Your task to perform on an android device: Open Youtube and go to "Your channel" Image 0: 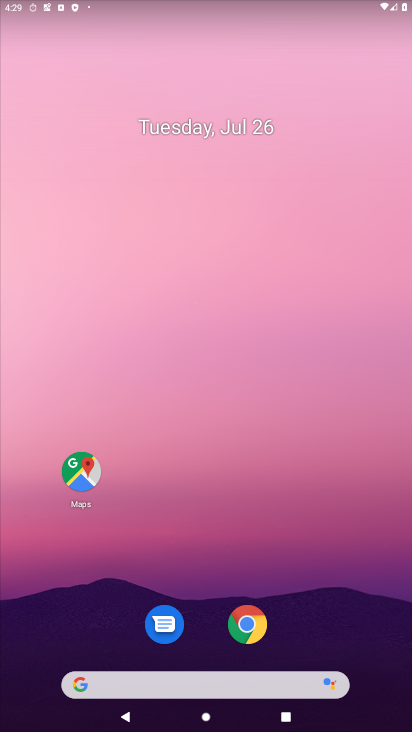
Step 0: drag from (250, 685) to (264, 9)
Your task to perform on an android device: Open Youtube and go to "Your channel" Image 1: 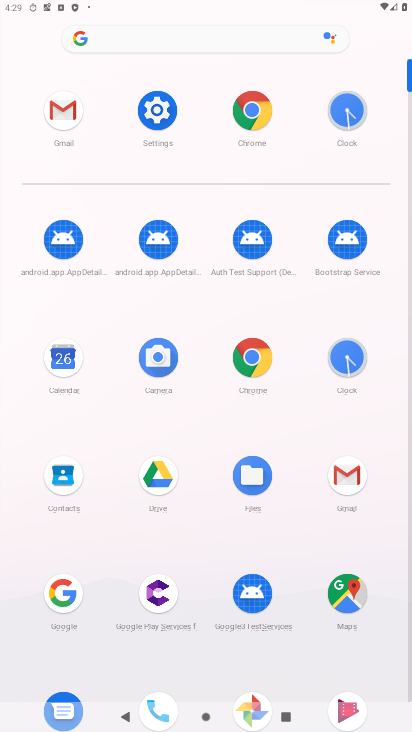
Step 1: drag from (316, 670) to (308, 250)
Your task to perform on an android device: Open Youtube and go to "Your channel" Image 2: 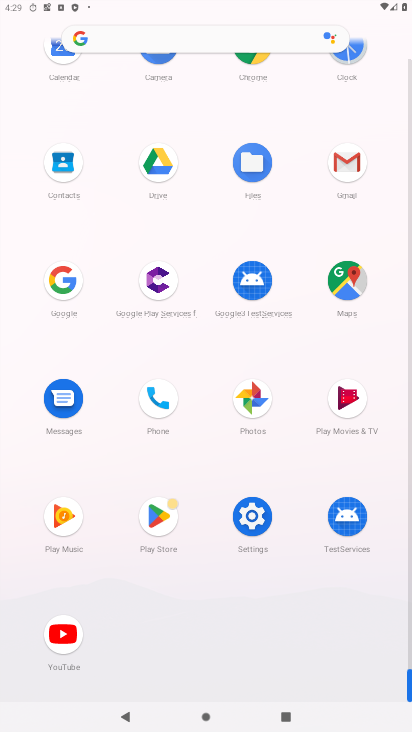
Step 2: click (64, 644)
Your task to perform on an android device: Open Youtube and go to "Your channel" Image 3: 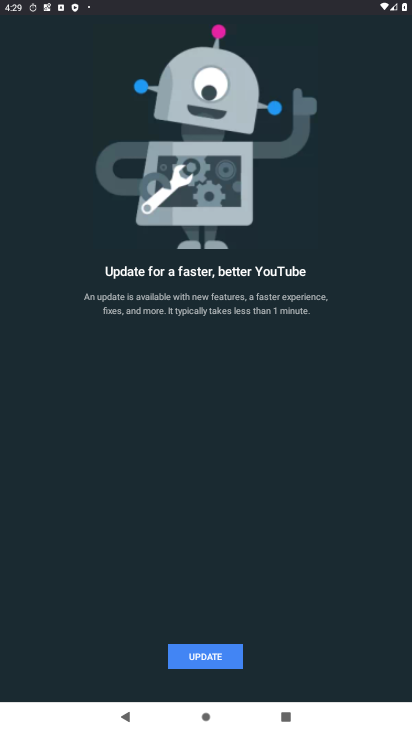
Step 3: click (221, 658)
Your task to perform on an android device: Open Youtube and go to "Your channel" Image 4: 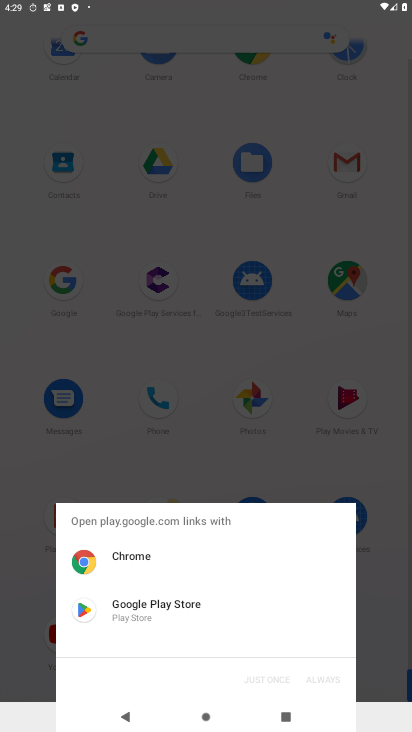
Step 4: click (167, 613)
Your task to perform on an android device: Open Youtube and go to "Your channel" Image 5: 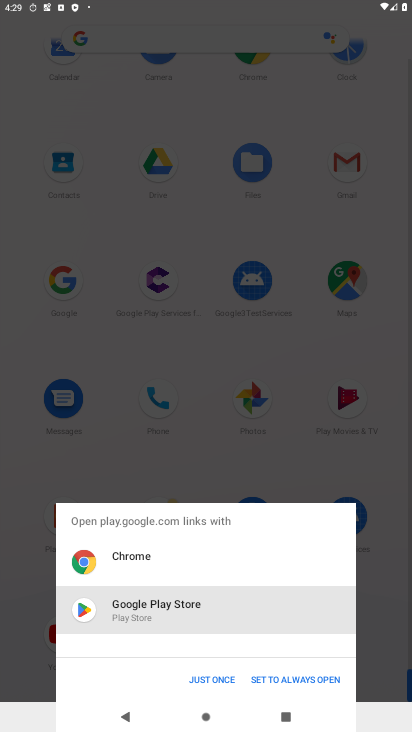
Step 5: click (225, 677)
Your task to perform on an android device: Open Youtube and go to "Your channel" Image 6: 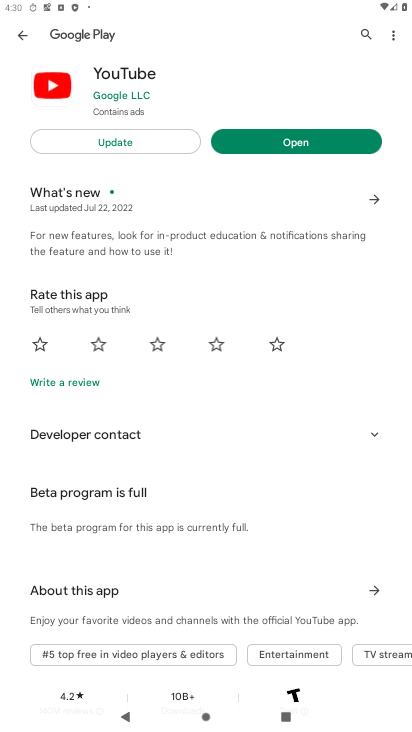
Step 6: click (162, 137)
Your task to perform on an android device: Open Youtube and go to "Your channel" Image 7: 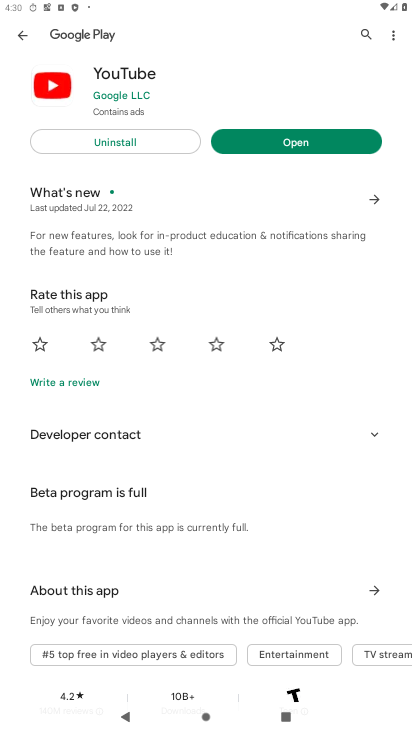
Step 7: click (294, 141)
Your task to perform on an android device: Open Youtube and go to "Your channel" Image 8: 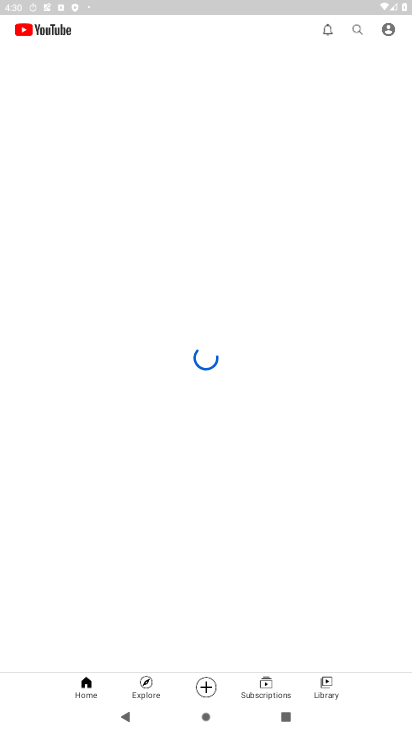
Step 8: click (393, 30)
Your task to perform on an android device: Open Youtube and go to "Your channel" Image 9: 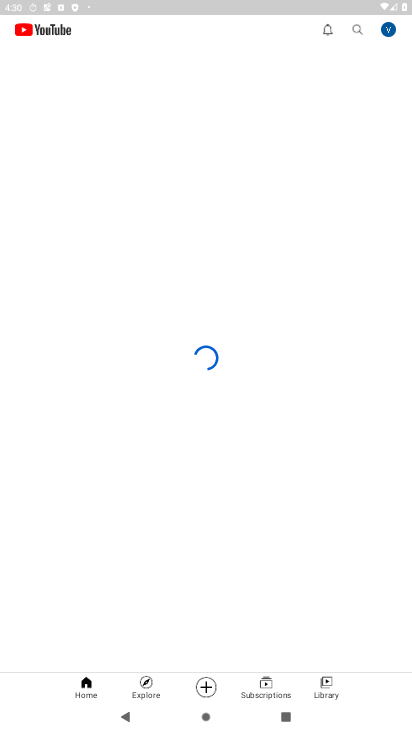
Step 9: click (389, 32)
Your task to perform on an android device: Open Youtube and go to "Your channel" Image 10: 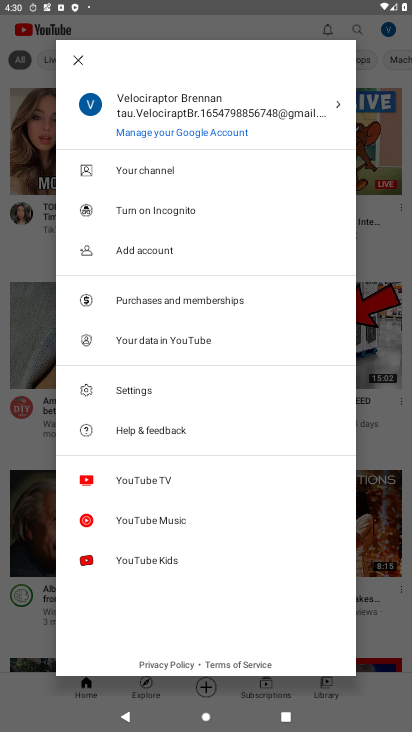
Step 10: click (175, 169)
Your task to perform on an android device: Open Youtube and go to "Your channel" Image 11: 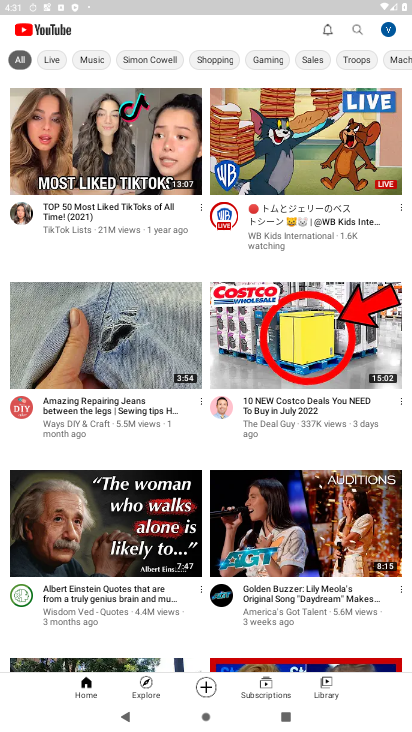
Step 11: click (384, 31)
Your task to perform on an android device: Open Youtube and go to "Your channel" Image 12: 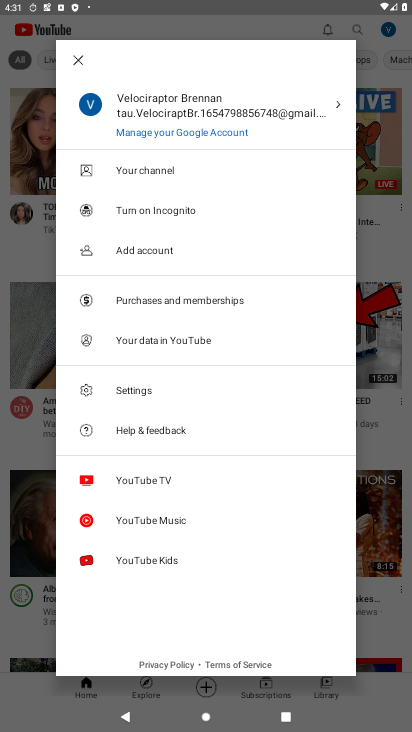
Step 12: click (168, 173)
Your task to perform on an android device: Open Youtube and go to "Your channel" Image 13: 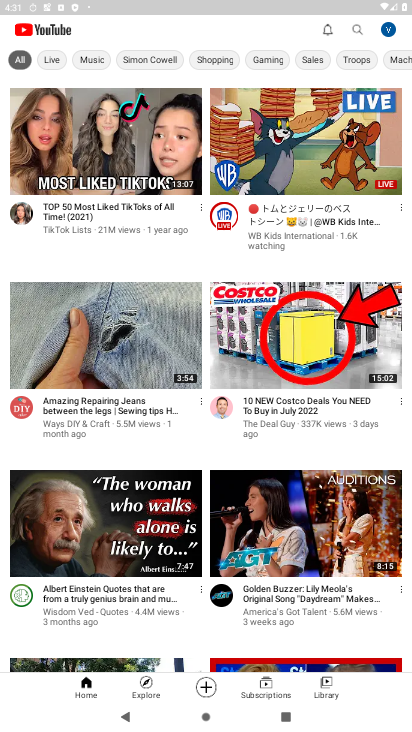
Step 13: task complete